Your task to perform on an android device: Go to accessibility settings Image 0: 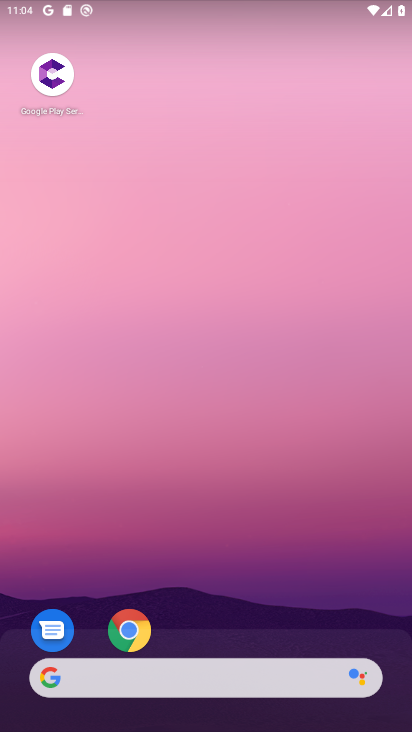
Step 0: press home button
Your task to perform on an android device: Go to accessibility settings Image 1: 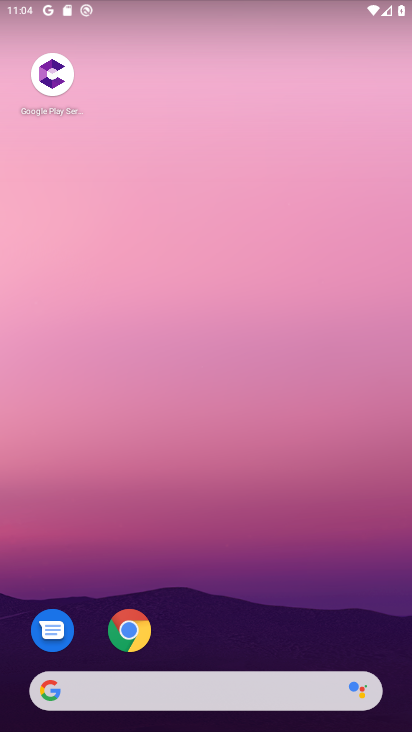
Step 1: drag from (187, 693) to (333, 159)
Your task to perform on an android device: Go to accessibility settings Image 2: 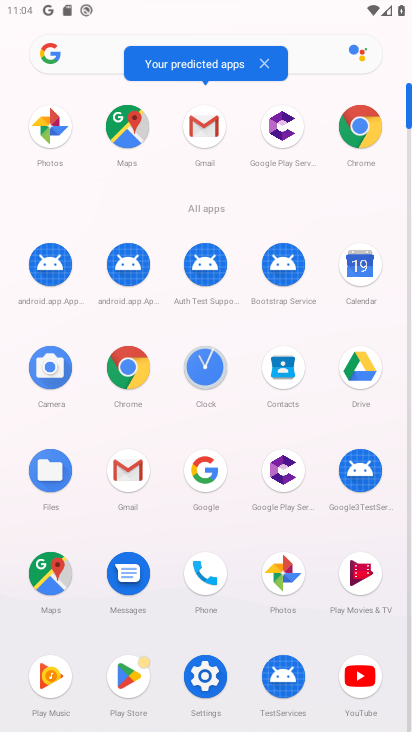
Step 2: drag from (242, 623) to (344, 326)
Your task to perform on an android device: Go to accessibility settings Image 3: 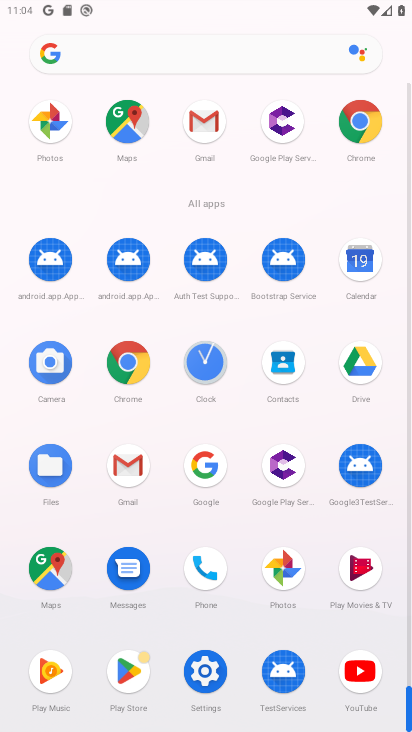
Step 3: click (204, 665)
Your task to perform on an android device: Go to accessibility settings Image 4: 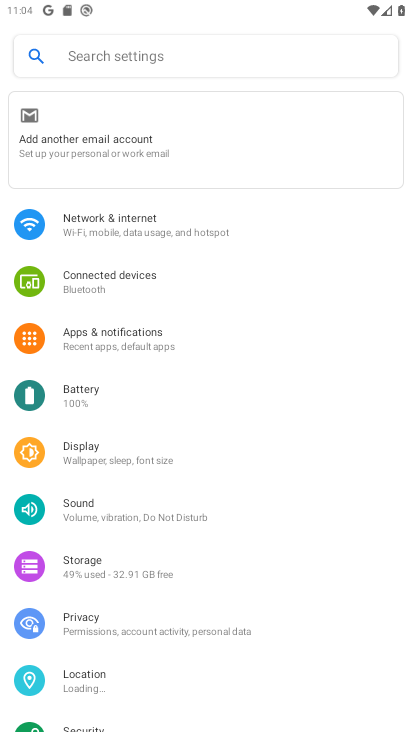
Step 4: drag from (221, 643) to (317, 269)
Your task to perform on an android device: Go to accessibility settings Image 5: 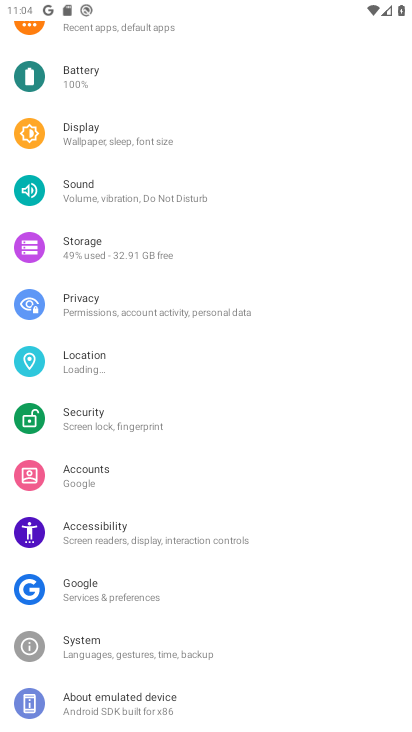
Step 5: click (119, 535)
Your task to perform on an android device: Go to accessibility settings Image 6: 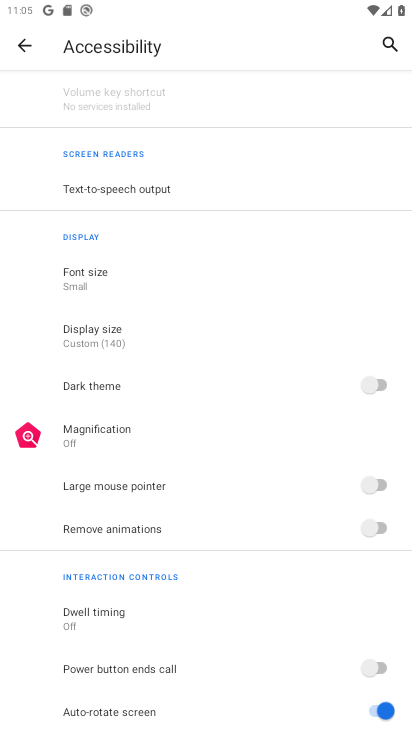
Step 6: task complete